Your task to perform on an android device: add a contact in the contacts app Image 0: 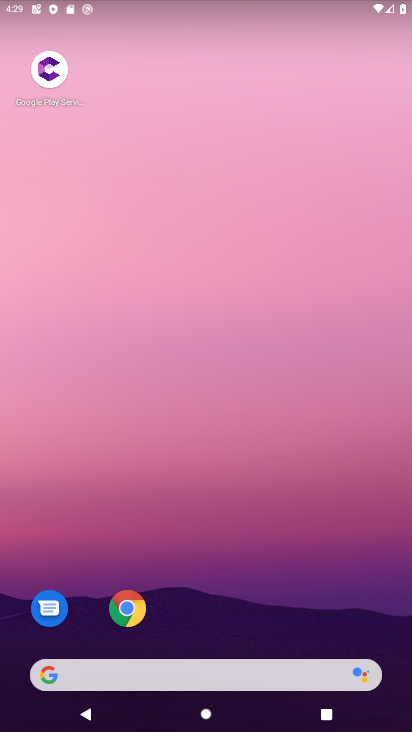
Step 0: drag from (183, 506) to (86, 263)
Your task to perform on an android device: add a contact in the contacts app Image 1: 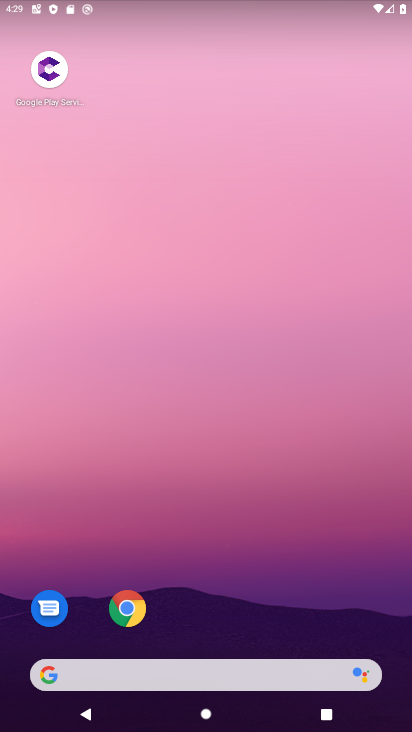
Step 1: drag from (233, 481) to (173, 264)
Your task to perform on an android device: add a contact in the contacts app Image 2: 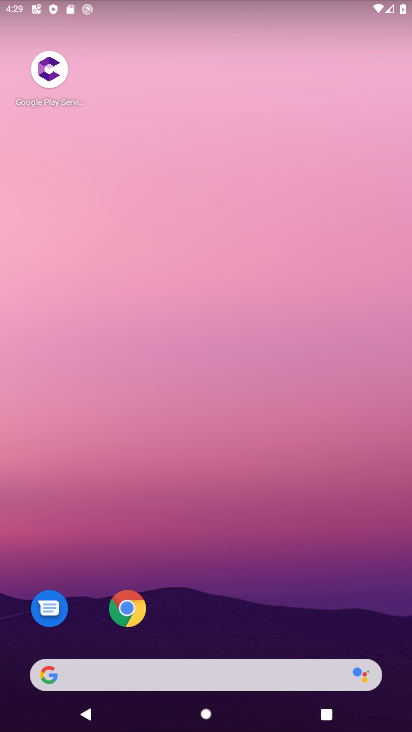
Step 2: drag from (227, 547) to (137, 123)
Your task to perform on an android device: add a contact in the contacts app Image 3: 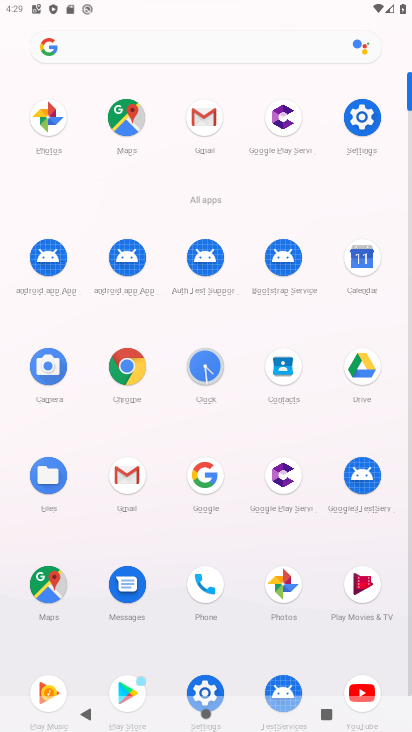
Step 3: drag from (236, 480) to (229, 260)
Your task to perform on an android device: add a contact in the contacts app Image 4: 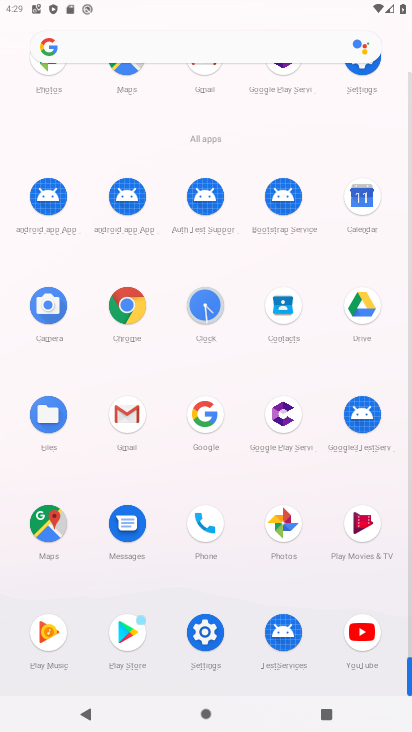
Step 4: click (274, 302)
Your task to perform on an android device: add a contact in the contacts app Image 5: 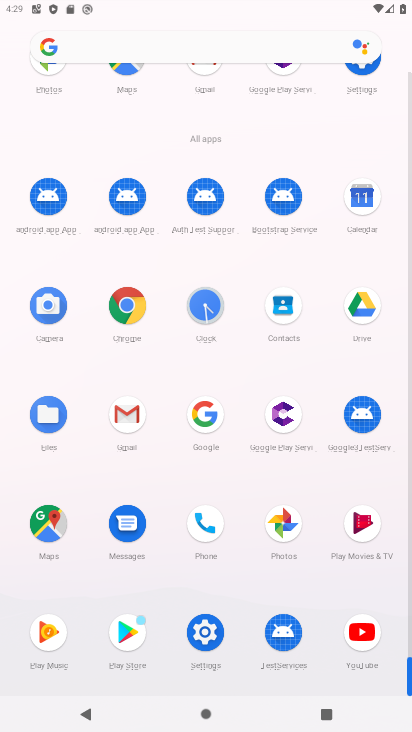
Step 5: click (274, 302)
Your task to perform on an android device: add a contact in the contacts app Image 6: 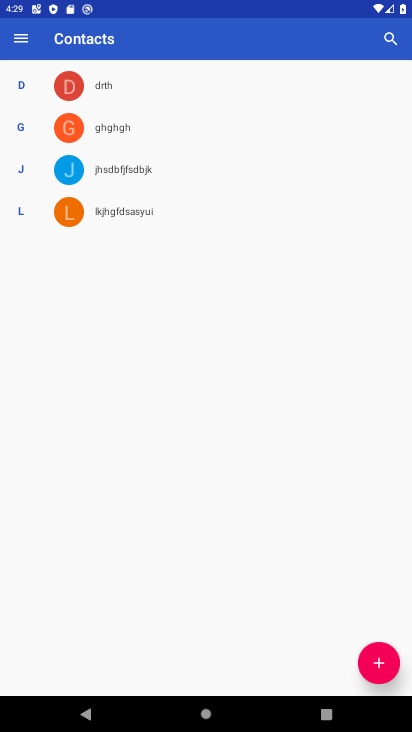
Step 6: click (374, 656)
Your task to perform on an android device: add a contact in the contacts app Image 7: 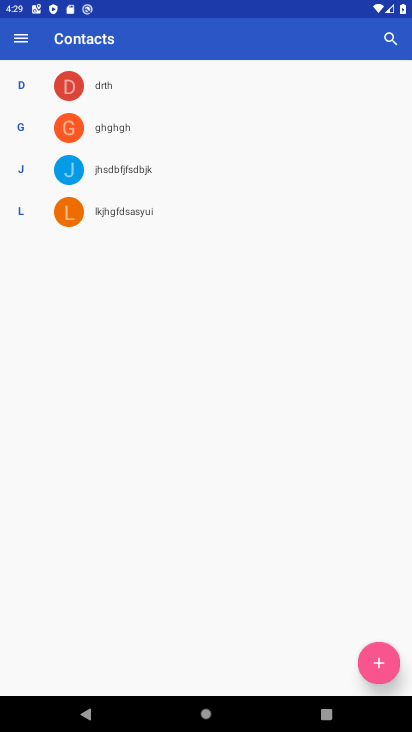
Step 7: click (372, 657)
Your task to perform on an android device: add a contact in the contacts app Image 8: 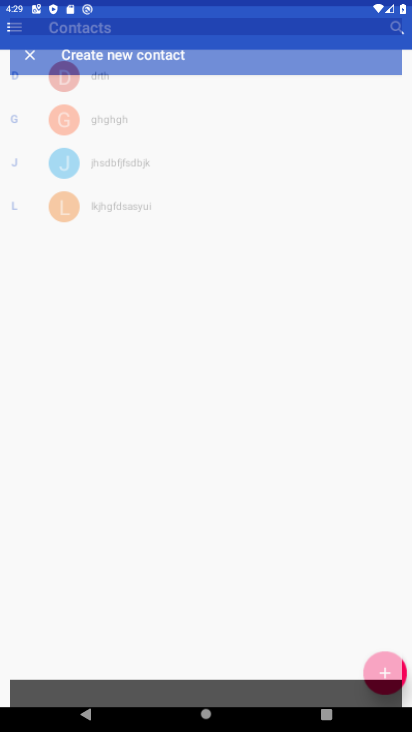
Step 8: click (372, 657)
Your task to perform on an android device: add a contact in the contacts app Image 9: 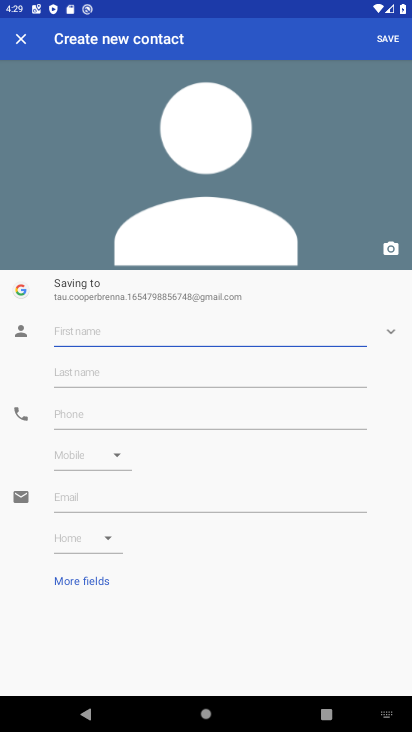
Step 9: click (78, 326)
Your task to perform on an android device: add a contact in the contacts app Image 10: 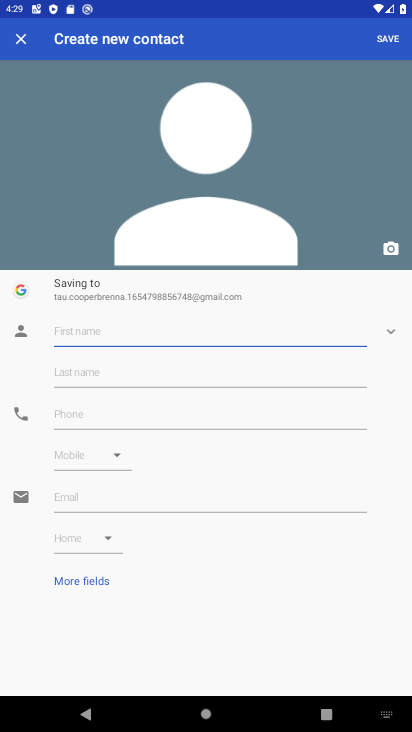
Step 10: type " vkjfsvvkjndfvkj"
Your task to perform on an android device: add a contact in the contacts app Image 11: 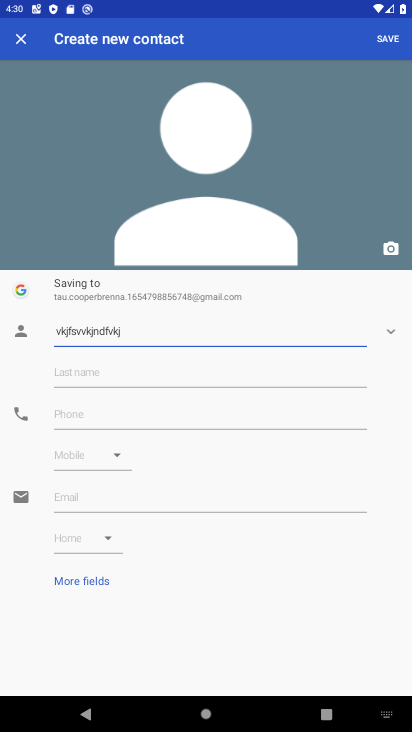
Step 11: click (70, 420)
Your task to perform on an android device: add a contact in the contacts app Image 12: 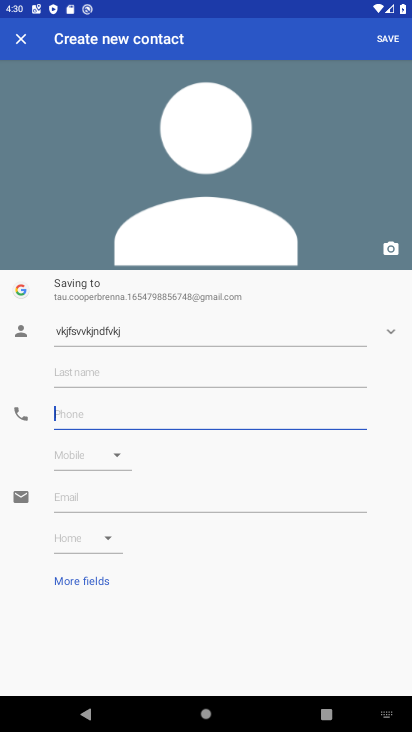
Step 12: click (70, 420)
Your task to perform on an android device: add a contact in the contacts app Image 13: 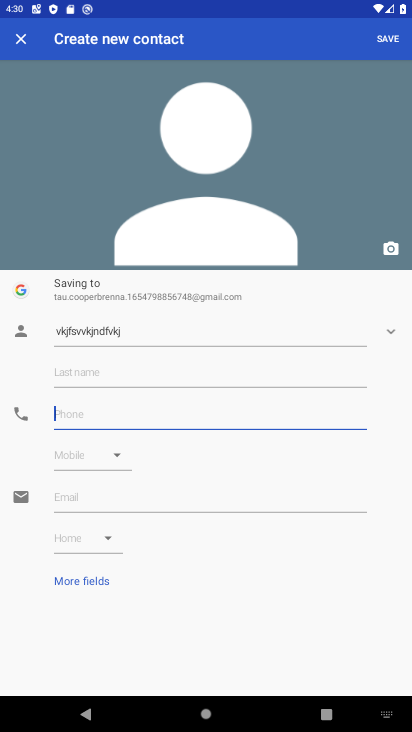
Step 13: click (70, 420)
Your task to perform on an android device: add a contact in the contacts app Image 14: 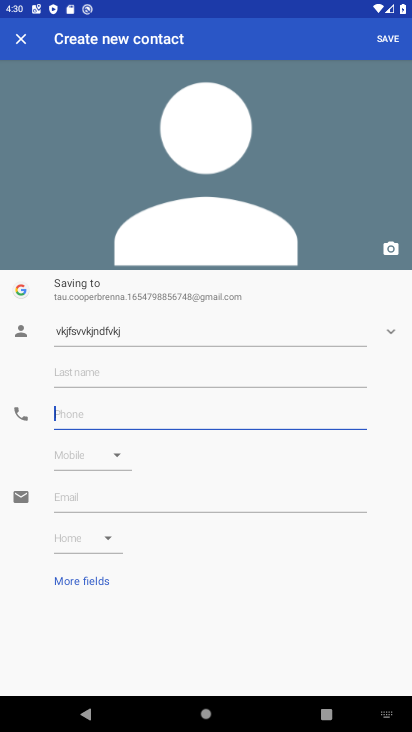
Step 14: type "988654689456"
Your task to perform on an android device: add a contact in the contacts app Image 15: 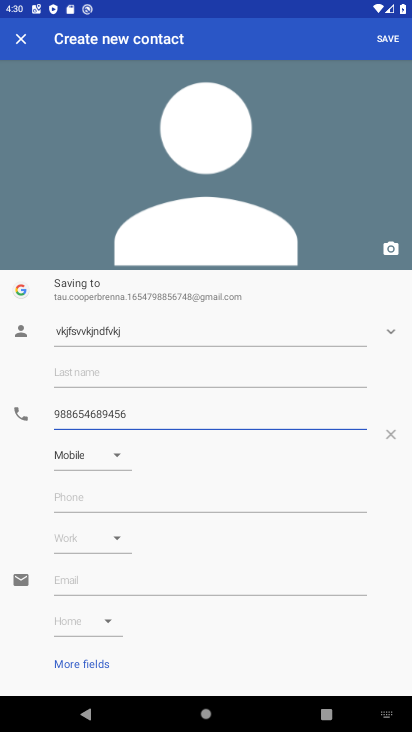
Step 15: click (379, 42)
Your task to perform on an android device: add a contact in the contacts app Image 16: 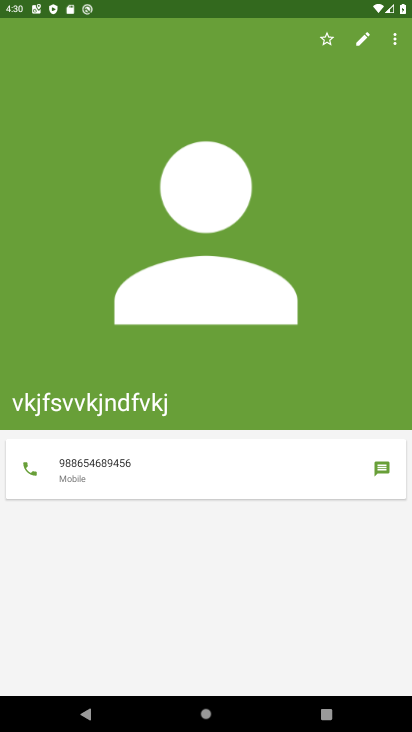
Step 16: drag from (140, 539) to (58, 30)
Your task to perform on an android device: add a contact in the contacts app Image 17: 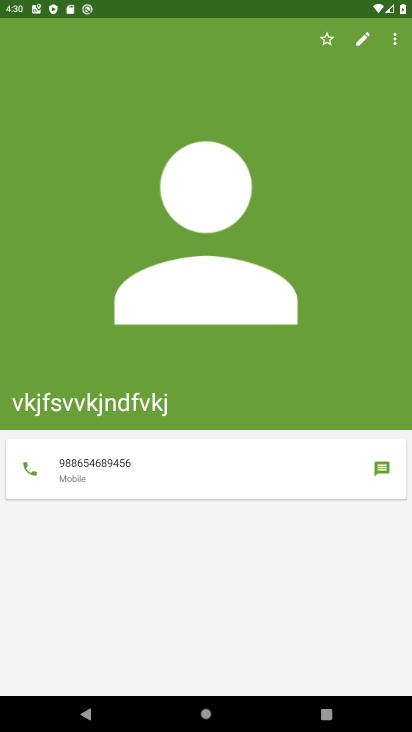
Step 17: drag from (103, 472) to (125, 156)
Your task to perform on an android device: add a contact in the contacts app Image 18: 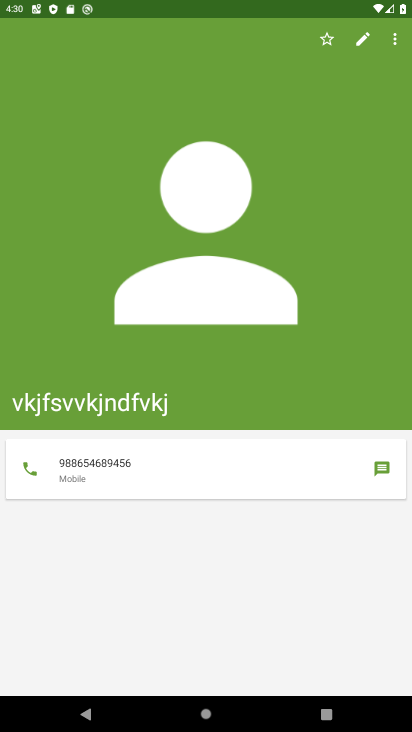
Step 18: drag from (154, 513) to (106, 131)
Your task to perform on an android device: add a contact in the contacts app Image 19: 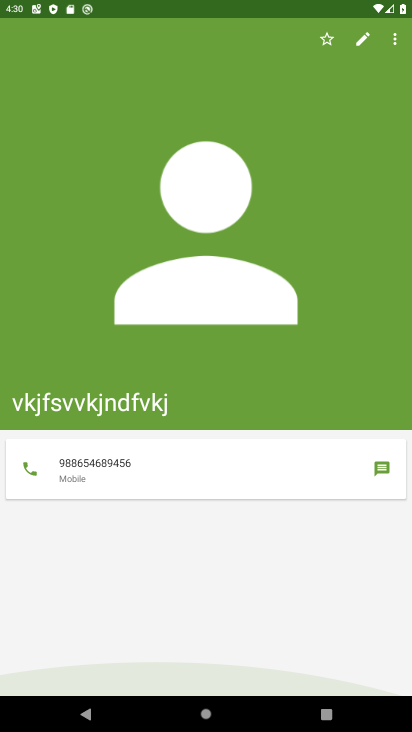
Step 19: drag from (174, 517) to (133, 251)
Your task to perform on an android device: add a contact in the contacts app Image 20: 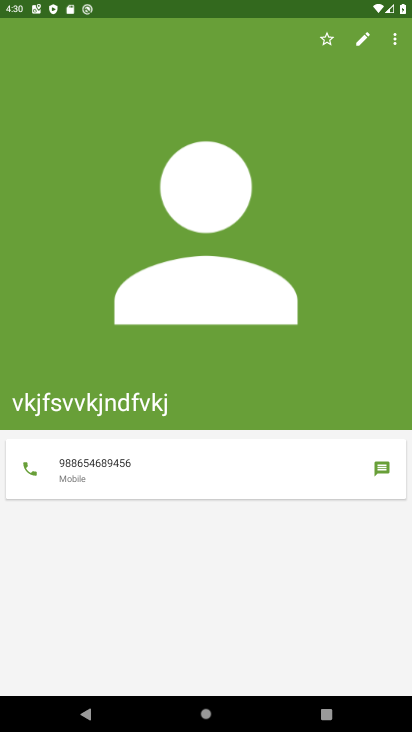
Step 20: click (364, 30)
Your task to perform on an android device: add a contact in the contacts app Image 21: 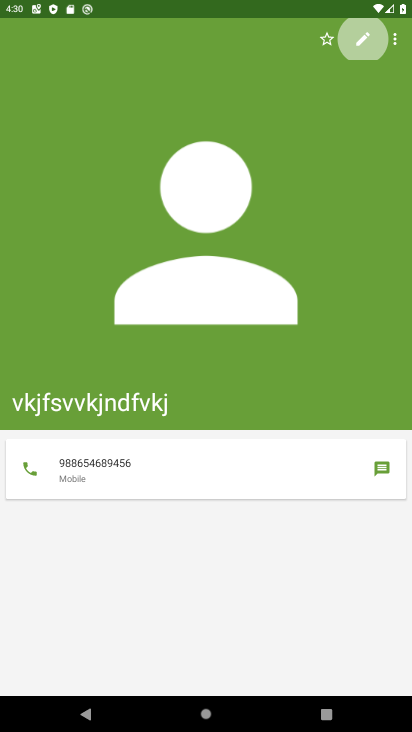
Step 21: click (364, 30)
Your task to perform on an android device: add a contact in the contacts app Image 22: 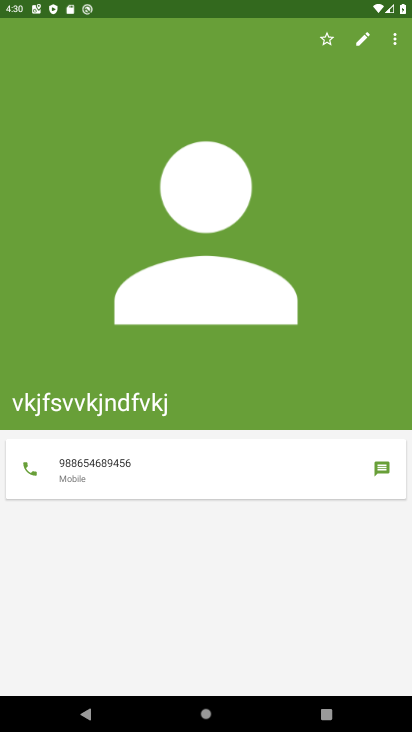
Step 22: click (370, 34)
Your task to perform on an android device: add a contact in the contacts app Image 23: 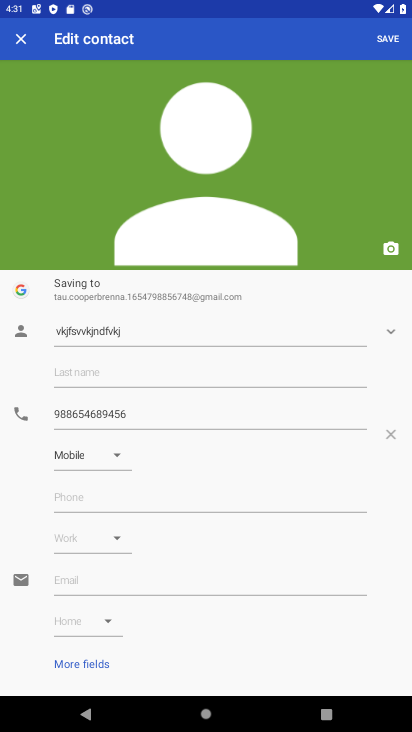
Step 23: click (379, 43)
Your task to perform on an android device: add a contact in the contacts app Image 24: 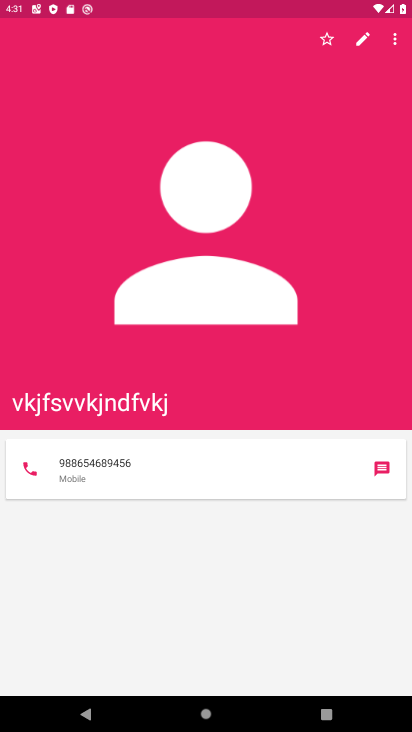
Step 24: task complete